Your task to perform on an android device: add a contact in the contacts app Image 0: 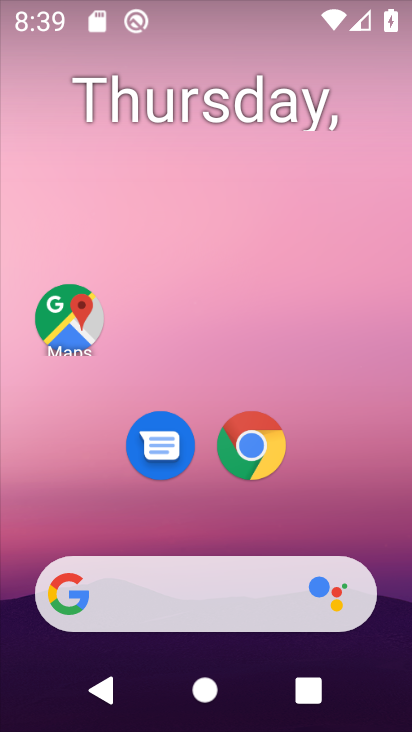
Step 0: drag from (310, 502) to (302, 60)
Your task to perform on an android device: add a contact in the contacts app Image 1: 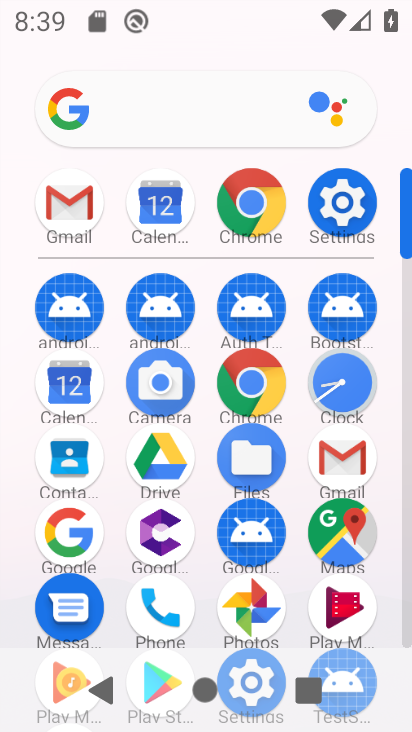
Step 1: click (72, 467)
Your task to perform on an android device: add a contact in the contacts app Image 2: 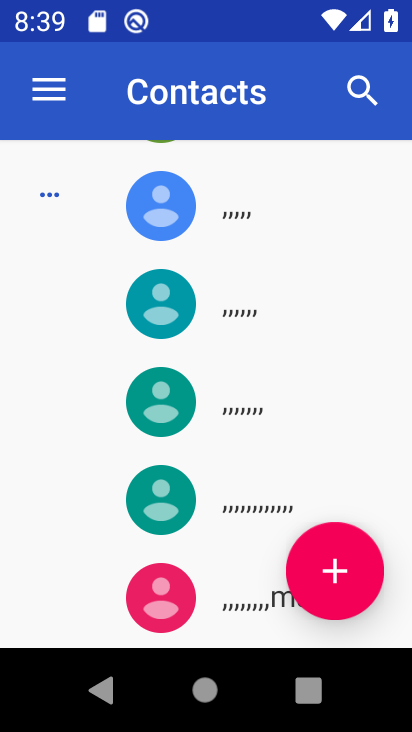
Step 2: click (333, 559)
Your task to perform on an android device: add a contact in the contacts app Image 3: 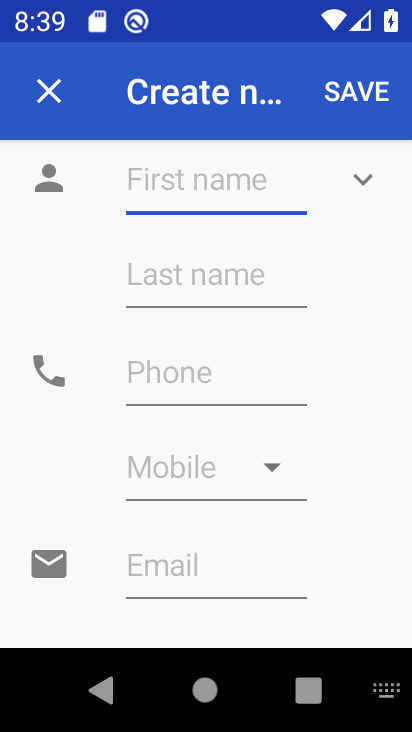
Step 3: click (199, 186)
Your task to perform on an android device: add a contact in the contacts app Image 4: 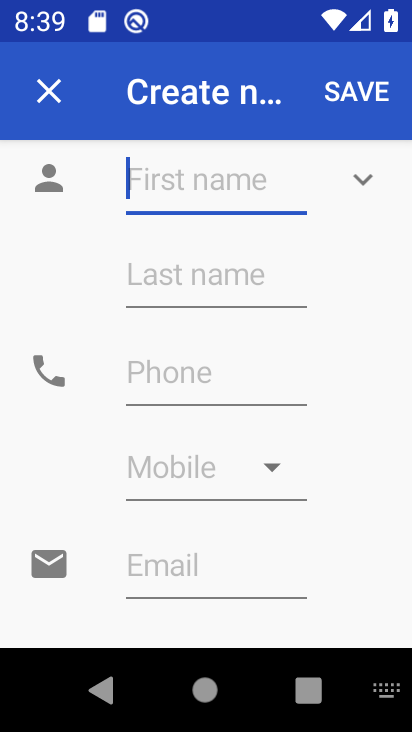
Step 4: type "gola"
Your task to perform on an android device: add a contact in the contacts app Image 5: 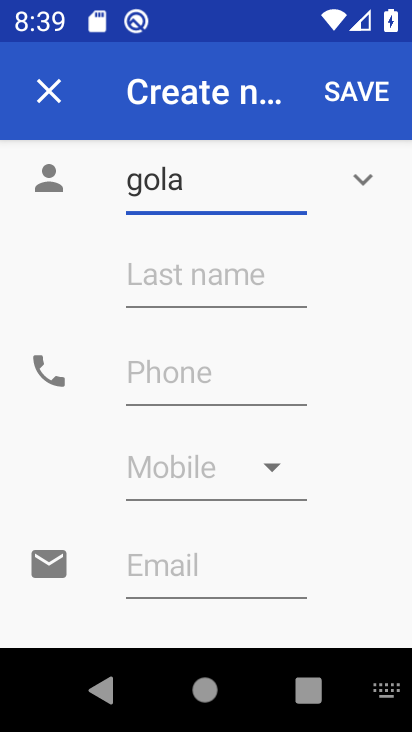
Step 5: click (153, 360)
Your task to perform on an android device: add a contact in the contacts app Image 6: 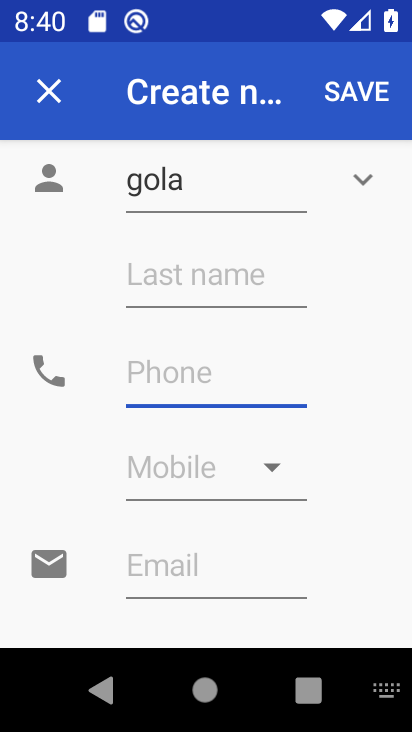
Step 6: type "876254267"
Your task to perform on an android device: add a contact in the contacts app Image 7: 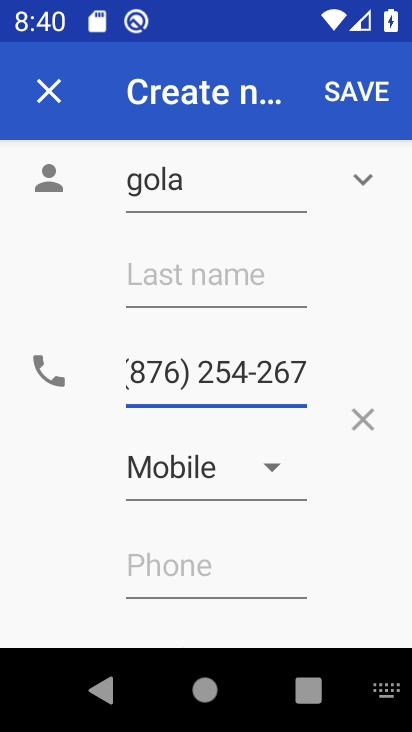
Step 7: type "6"
Your task to perform on an android device: add a contact in the contacts app Image 8: 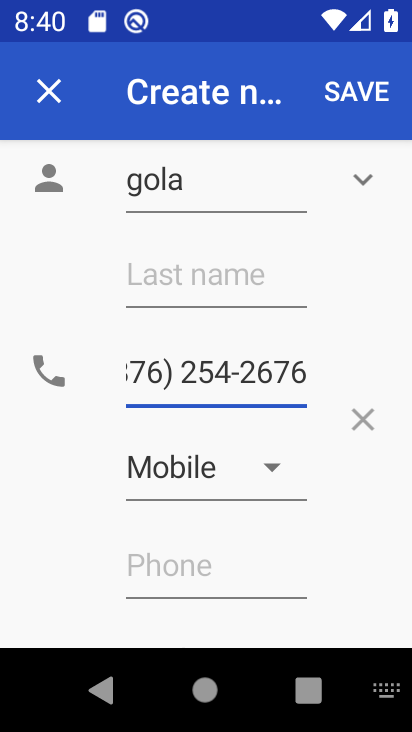
Step 8: click (363, 94)
Your task to perform on an android device: add a contact in the contacts app Image 9: 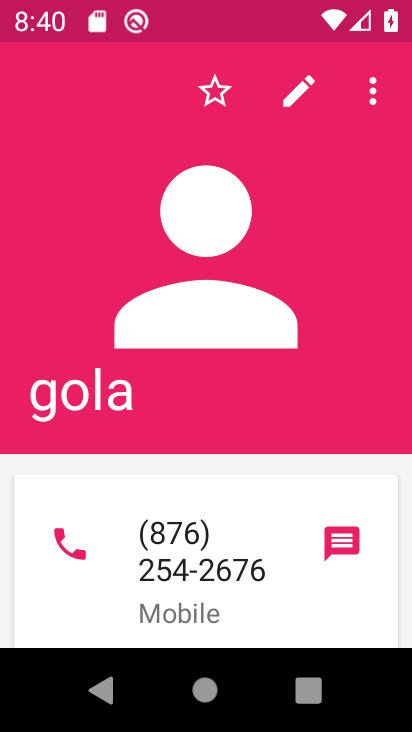
Step 9: task complete